Your task to perform on an android device: Show me recent news Image 0: 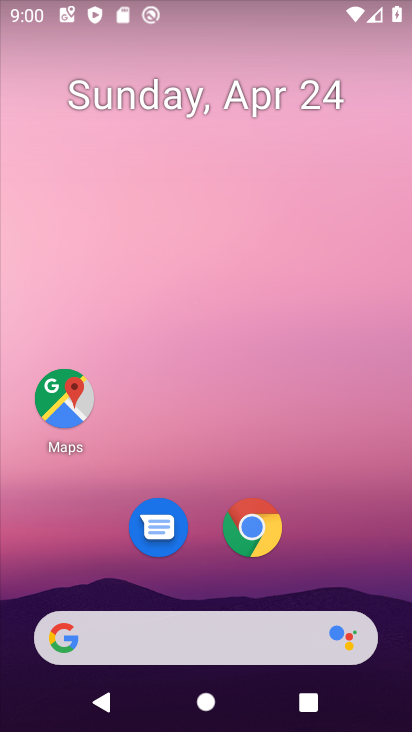
Step 0: click (199, 646)
Your task to perform on an android device: Show me recent news Image 1: 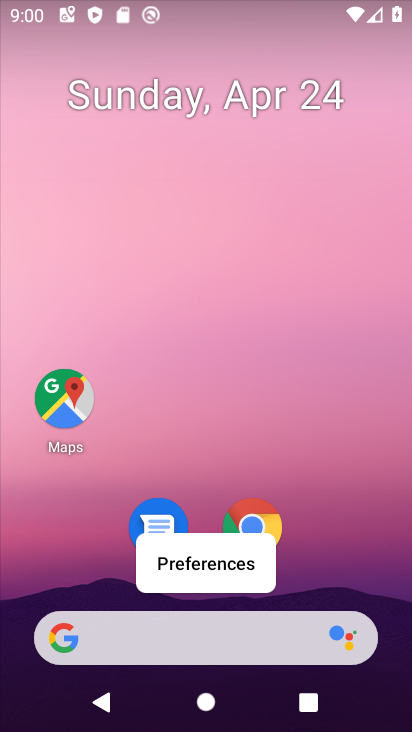
Step 1: click (125, 636)
Your task to perform on an android device: Show me recent news Image 2: 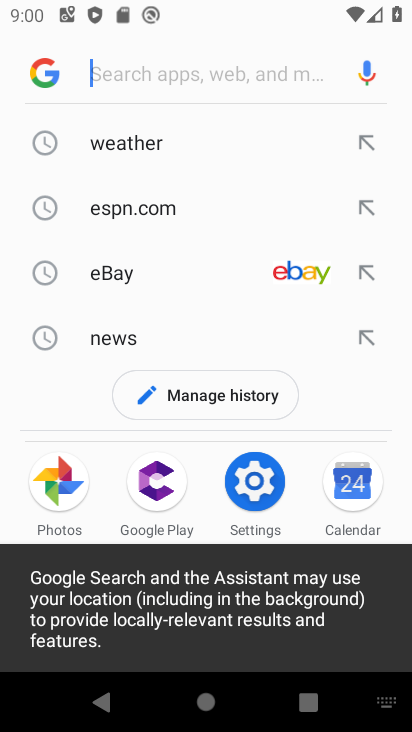
Step 2: click (124, 69)
Your task to perform on an android device: Show me recent news Image 3: 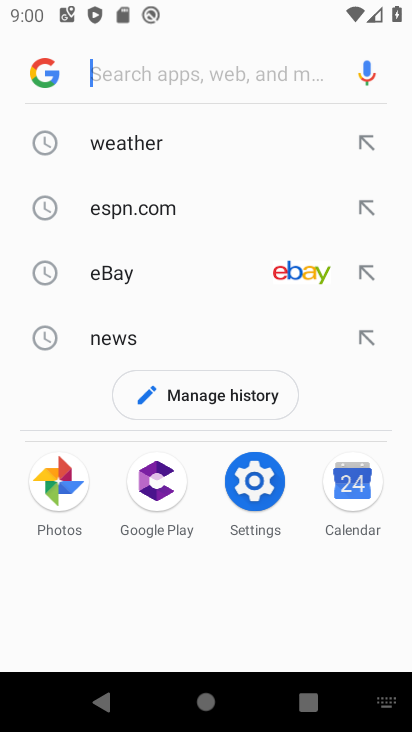
Step 3: type "recent news"
Your task to perform on an android device: Show me recent news Image 4: 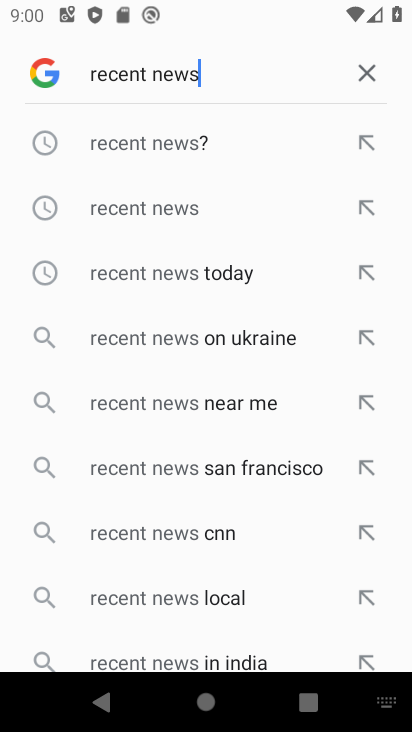
Step 4: click (166, 148)
Your task to perform on an android device: Show me recent news Image 5: 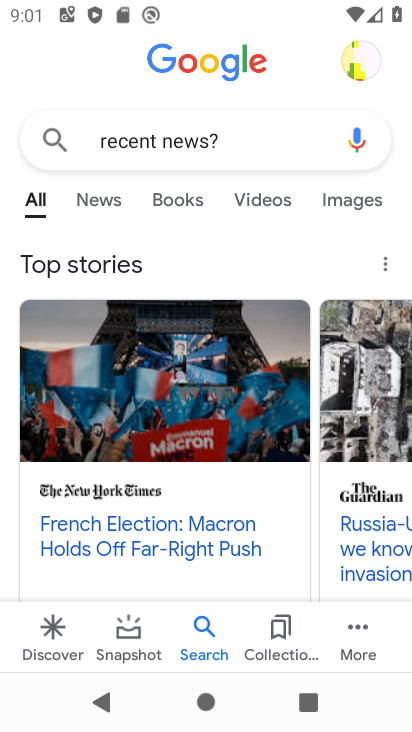
Step 5: task complete